Your task to perform on an android device: manage bookmarks in the chrome app Image 0: 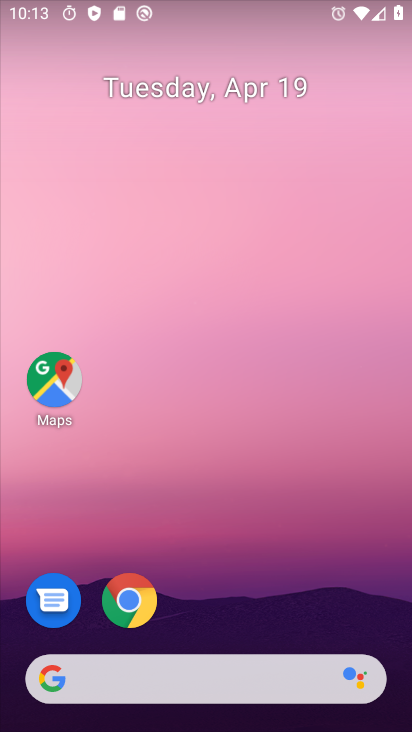
Step 0: click (213, 612)
Your task to perform on an android device: manage bookmarks in the chrome app Image 1: 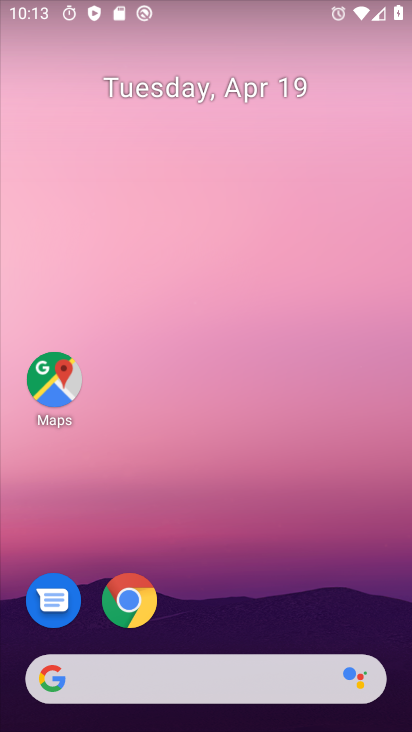
Step 1: click (140, 607)
Your task to perform on an android device: manage bookmarks in the chrome app Image 2: 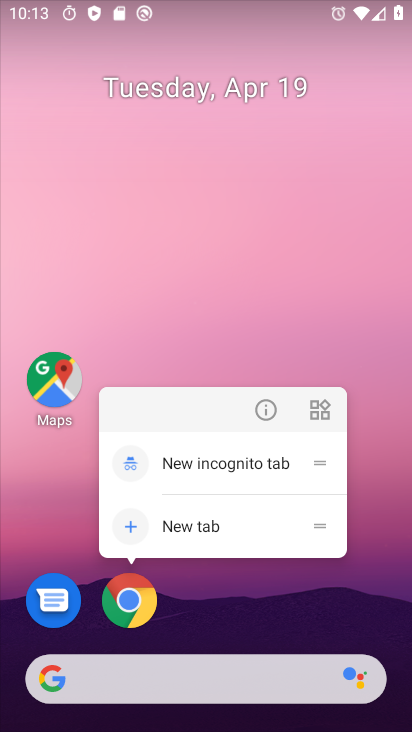
Step 2: click (139, 605)
Your task to perform on an android device: manage bookmarks in the chrome app Image 3: 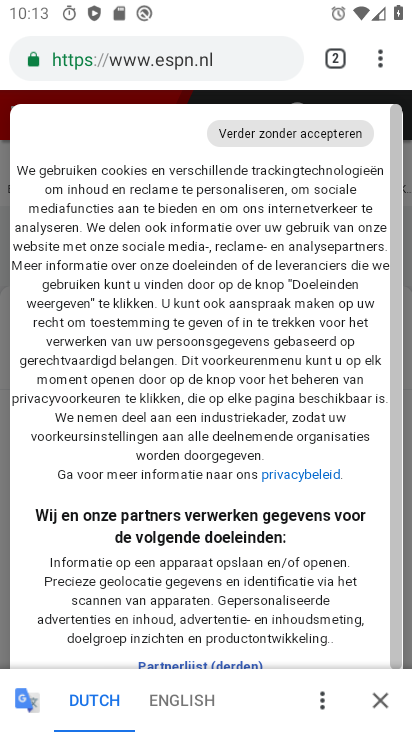
Step 3: click (385, 58)
Your task to perform on an android device: manage bookmarks in the chrome app Image 4: 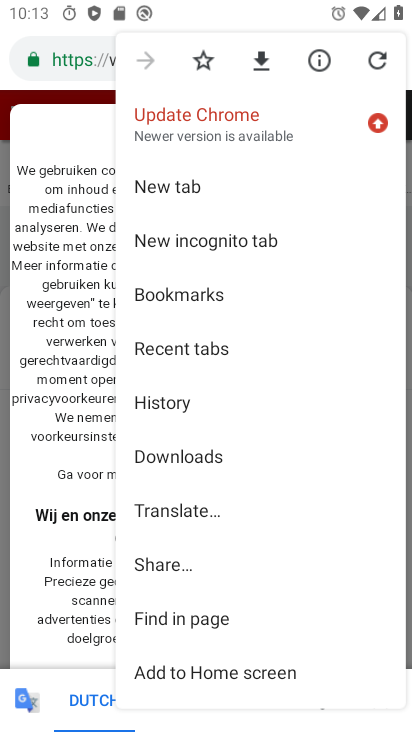
Step 4: drag from (193, 636) to (231, 422)
Your task to perform on an android device: manage bookmarks in the chrome app Image 5: 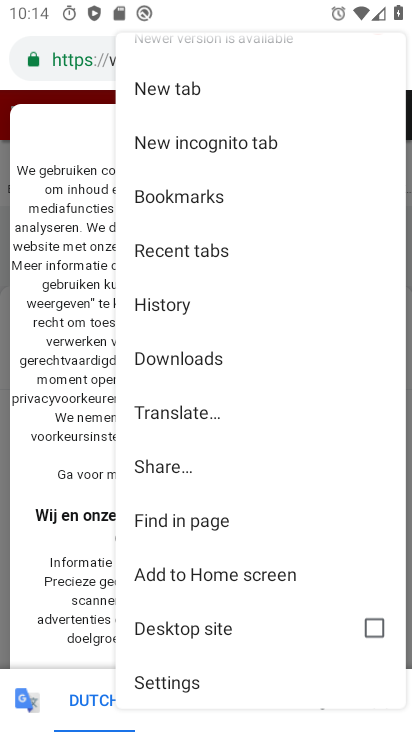
Step 5: click (204, 201)
Your task to perform on an android device: manage bookmarks in the chrome app Image 6: 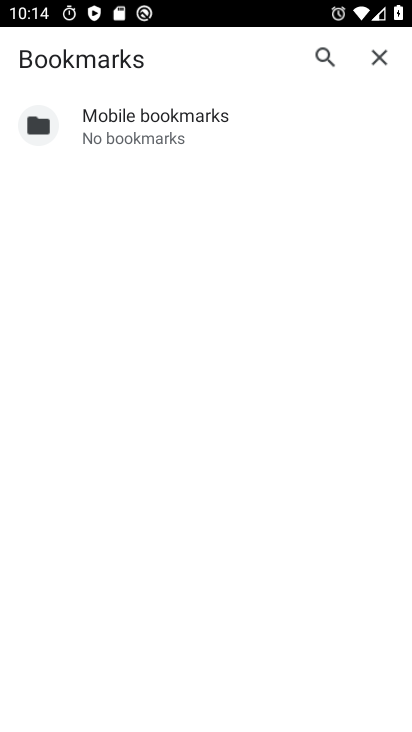
Step 6: click (176, 133)
Your task to perform on an android device: manage bookmarks in the chrome app Image 7: 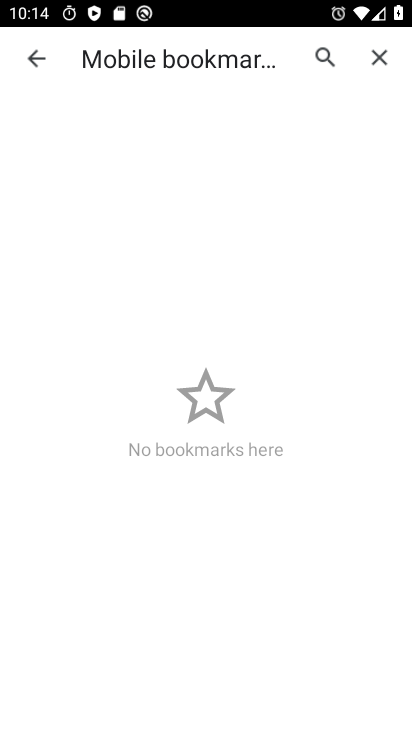
Step 7: task complete